Your task to perform on an android device: show emergency info Image 0: 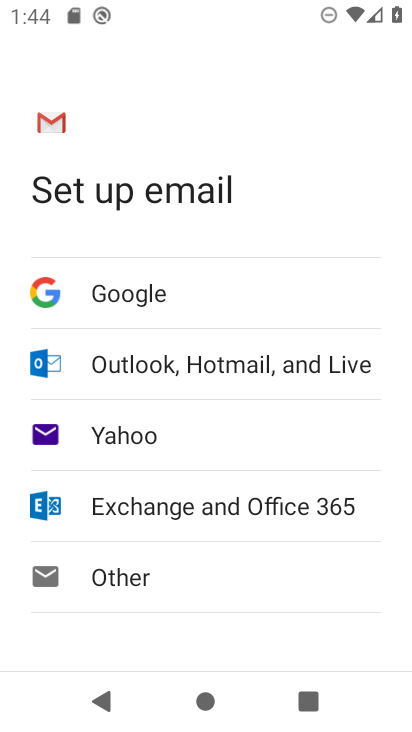
Step 0: press home button
Your task to perform on an android device: show emergency info Image 1: 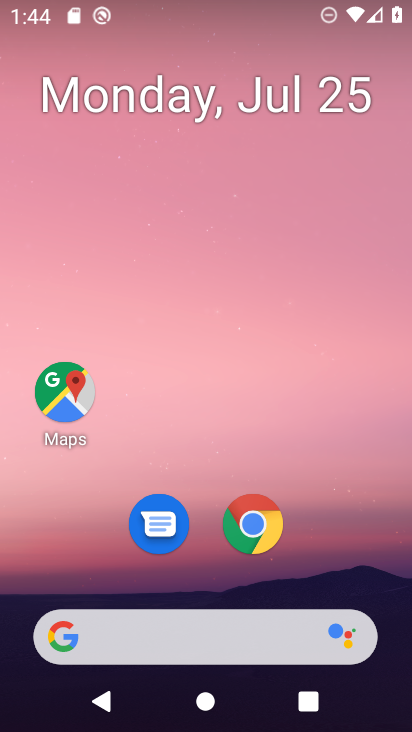
Step 1: drag from (205, 650) to (290, 41)
Your task to perform on an android device: show emergency info Image 2: 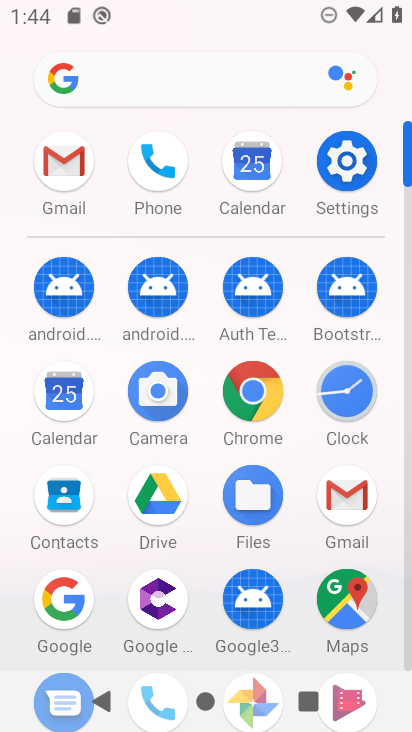
Step 2: click (347, 157)
Your task to perform on an android device: show emergency info Image 3: 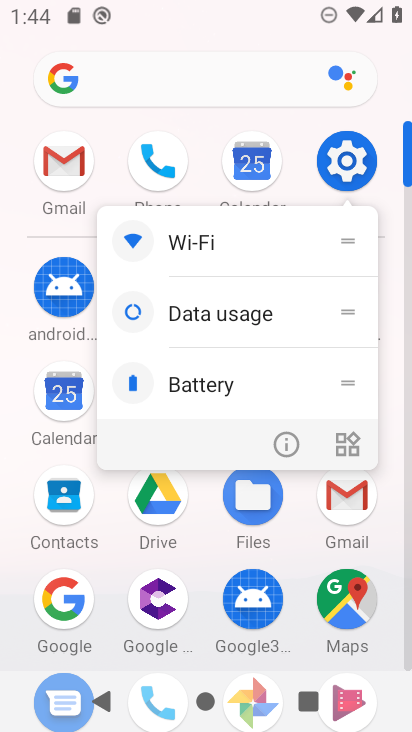
Step 3: click (355, 166)
Your task to perform on an android device: show emergency info Image 4: 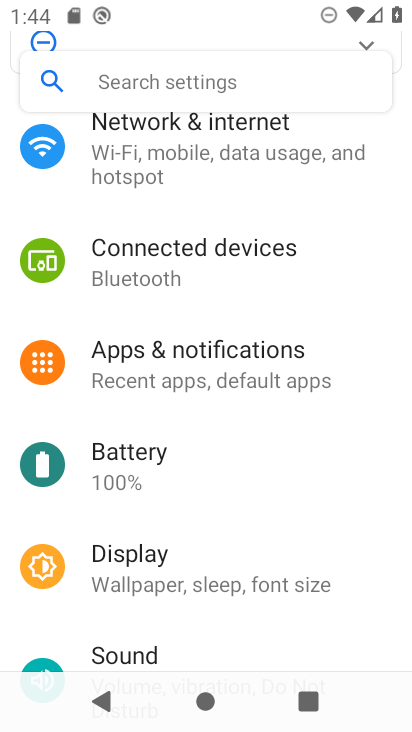
Step 4: drag from (254, 634) to (271, 21)
Your task to perform on an android device: show emergency info Image 5: 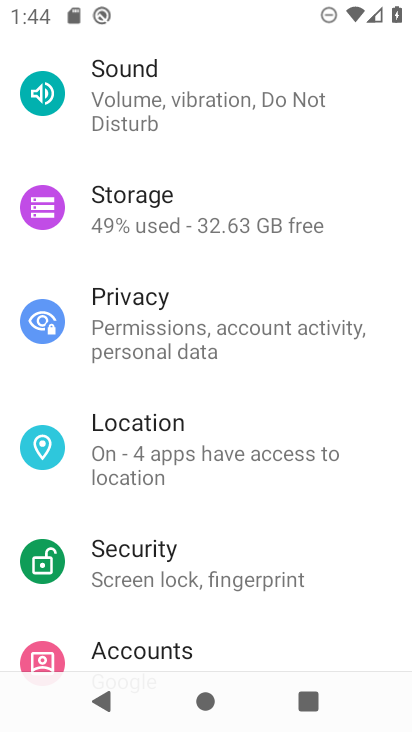
Step 5: drag from (243, 631) to (237, 31)
Your task to perform on an android device: show emergency info Image 6: 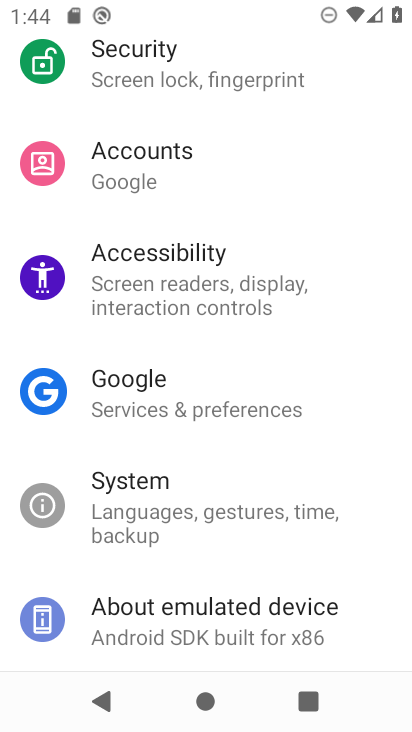
Step 6: click (236, 617)
Your task to perform on an android device: show emergency info Image 7: 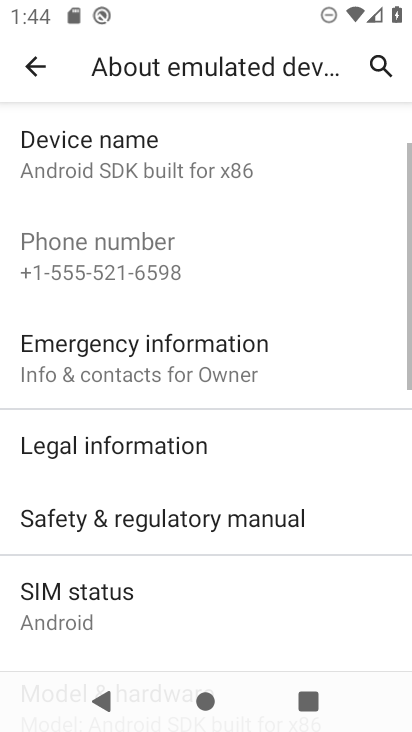
Step 7: click (110, 357)
Your task to perform on an android device: show emergency info Image 8: 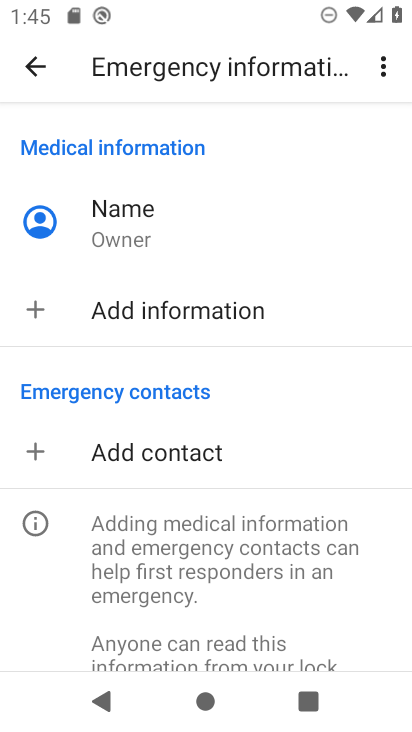
Step 8: task complete